Your task to perform on an android device: Open ESPN.com Image 0: 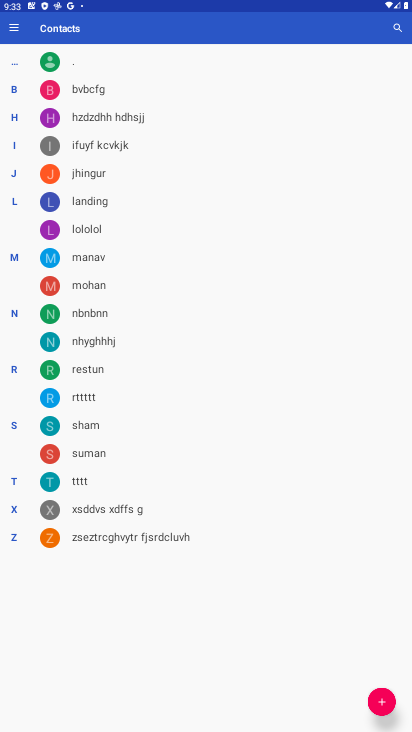
Step 0: press home button
Your task to perform on an android device: Open ESPN.com Image 1: 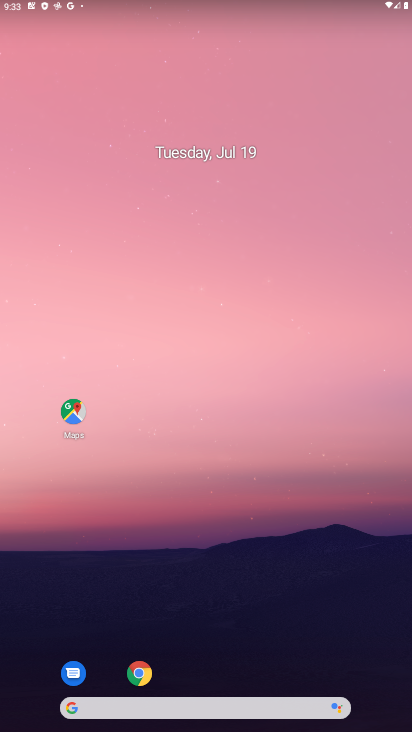
Step 1: click (242, 698)
Your task to perform on an android device: Open ESPN.com Image 2: 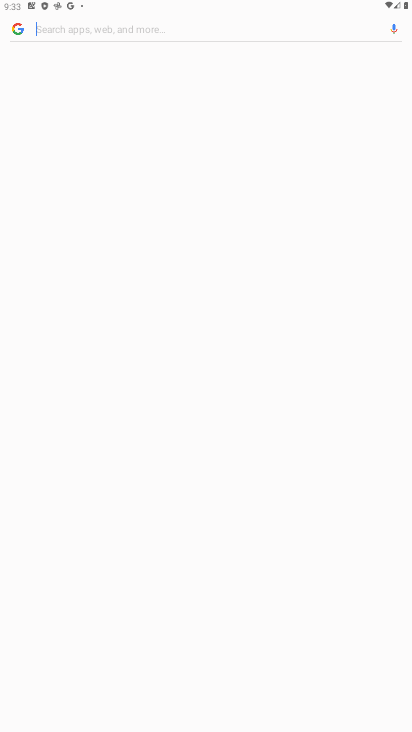
Step 2: type ""
Your task to perform on an android device: Open ESPN.com Image 3: 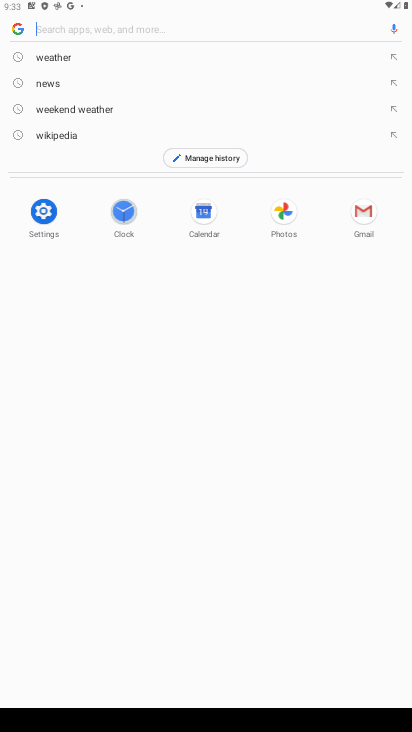
Step 3: type ""
Your task to perform on an android device: Open ESPN.com Image 4: 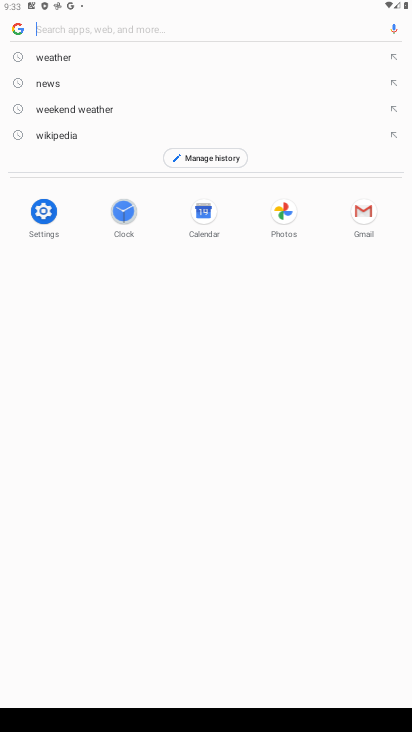
Step 4: type "espn.com"
Your task to perform on an android device: Open ESPN.com Image 5: 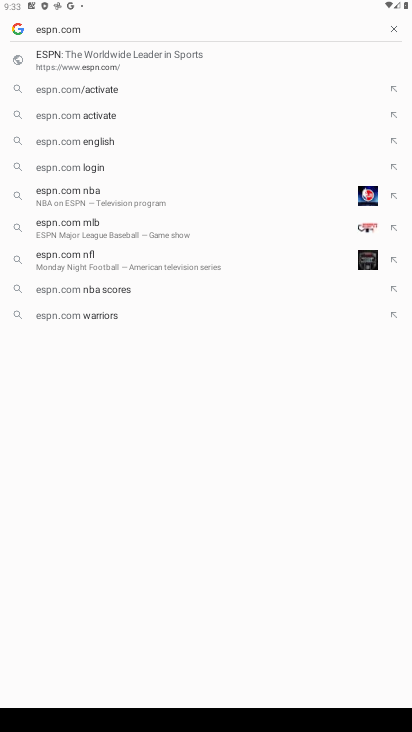
Step 5: click (75, 56)
Your task to perform on an android device: Open ESPN.com Image 6: 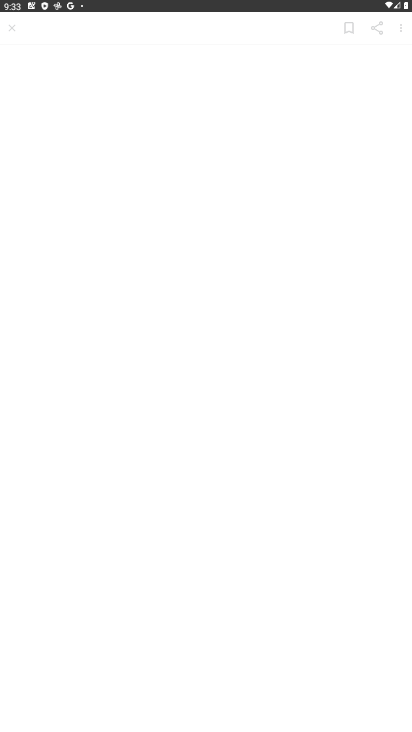
Step 6: task complete